Your task to perform on an android device: turn off wifi Image 0: 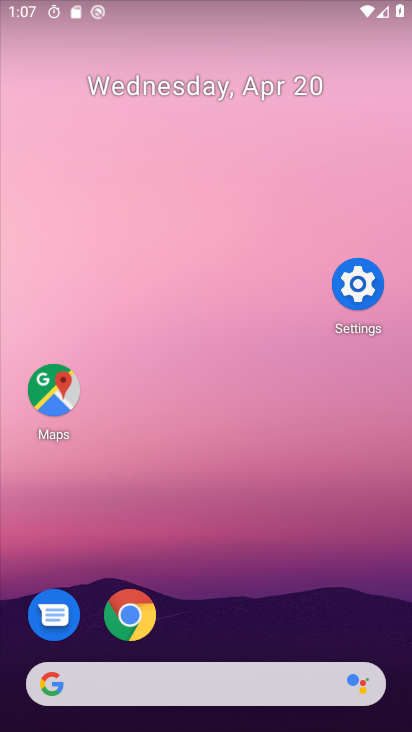
Step 0: drag from (172, 648) to (293, 216)
Your task to perform on an android device: turn off wifi Image 1: 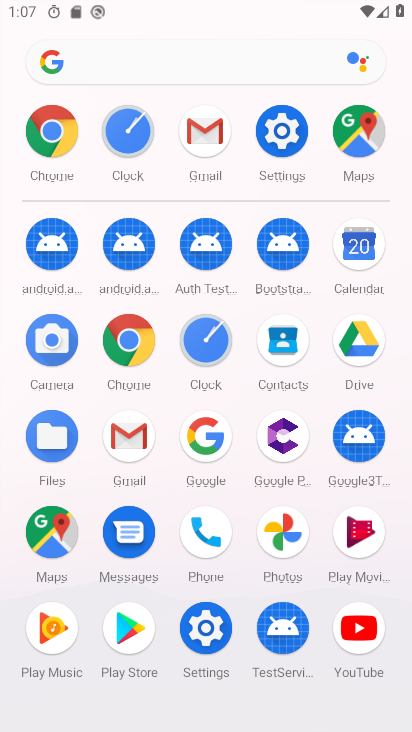
Step 1: click (216, 640)
Your task to perform on an android device: turn off wifi Image 2: 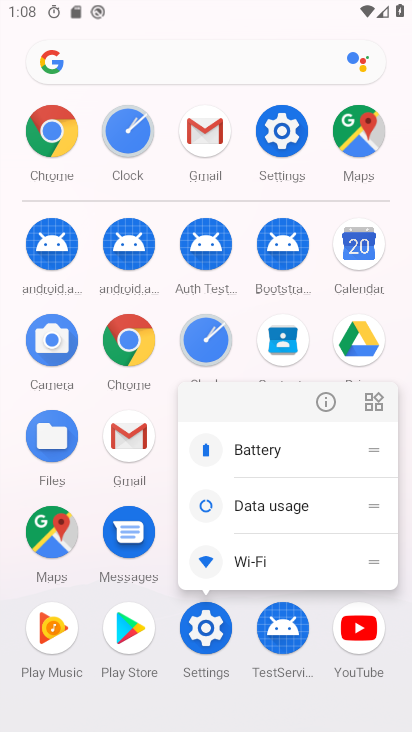
Step 2: click (323, 406)
Your task to perform on an android device: turn off wifi Image 3: 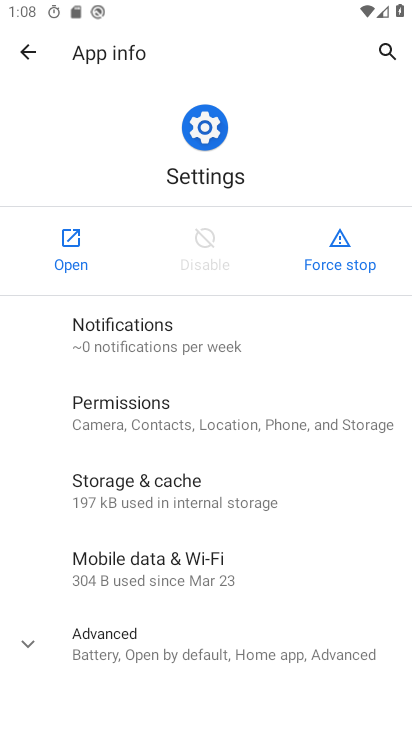
Step 3: click (82, 253)
Your task to perform on an android device: turn off wifi Image 4: 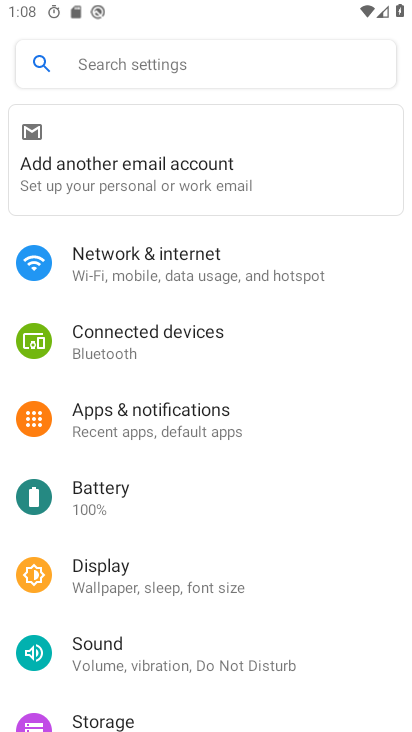
Step 4: click (122, 269)
Your task to perform on an android device: turn off wifi Image 5: 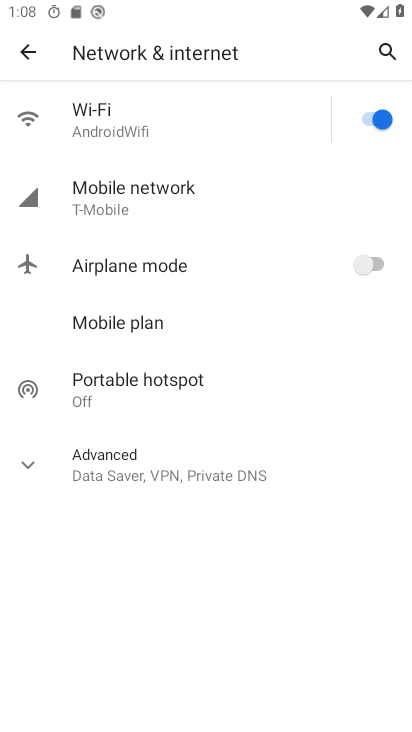
Step 5: click (358, 119)
Your task to perform on an android device: turn off wifi Image 6: 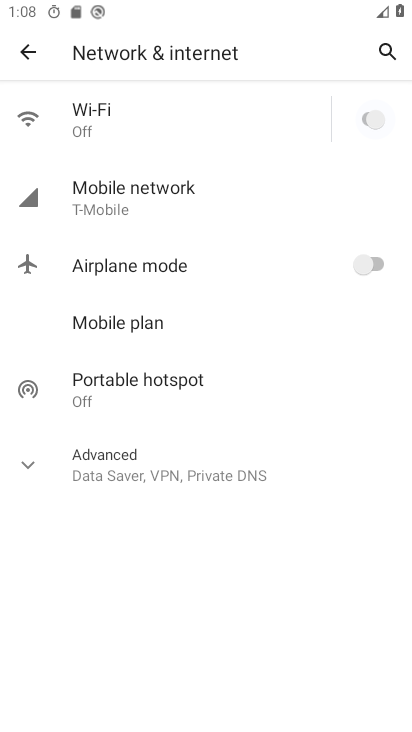
Step 6: task complete